Your task to perform on an android device: turn on translation in the chrome app Image 0: 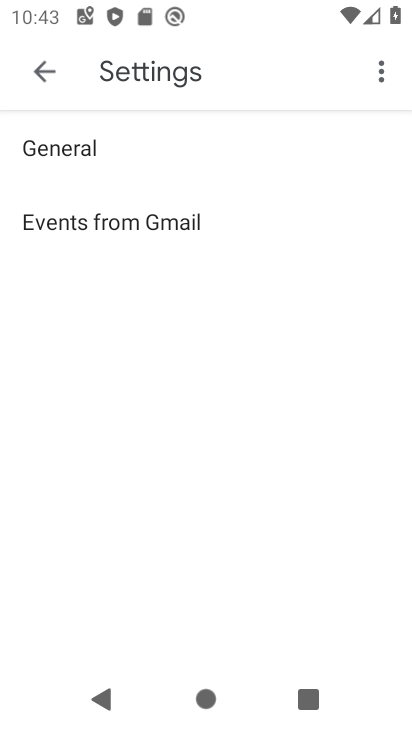
Step 0: press home button
Your task to perform on an android device: turn on translation in the chrome app Image 1: 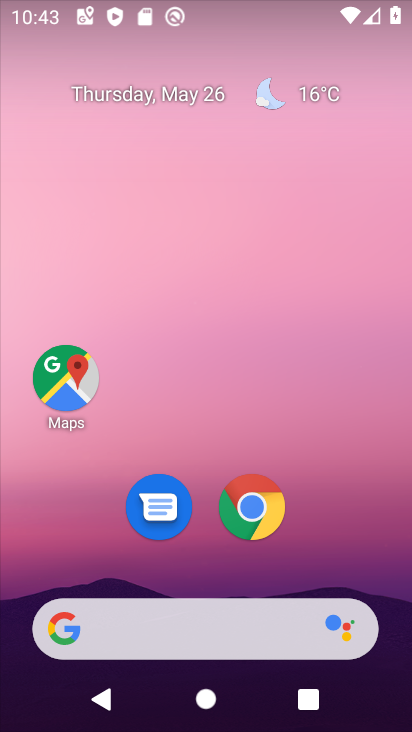
Step 1: drag from (257, 589) to (256, 194)
Your task to perform on an android device: turn on translation in the chrome app Image 2: 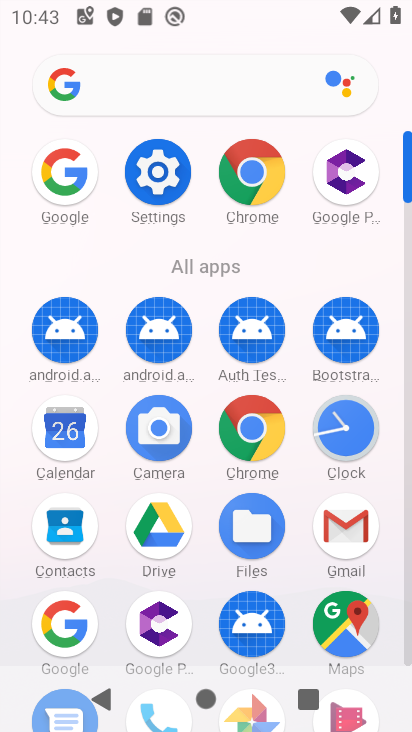
Step 2: click (252, 178)
Your task to perform on an android device: turn on translation in the chrome app Image 3: 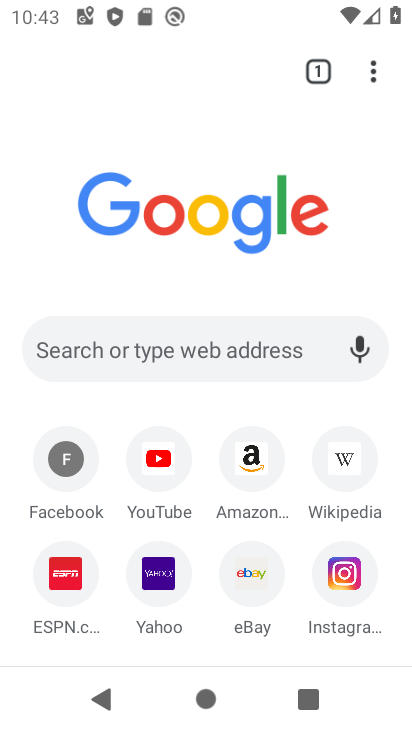
Step 3: click (376, 74)
Your task to perform on an android device: turn on translation in the chrome app Image 4: 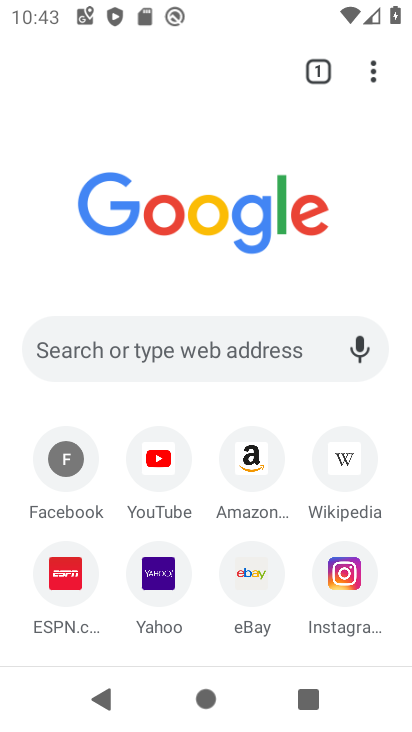
Step 4: click (376, 70)
Your task to perform on an android device: turn on translation in the chrome app Image 5: 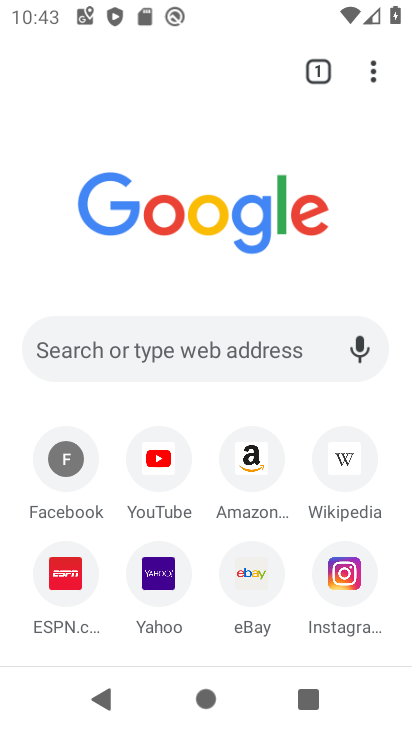
Step 5: click (369, 72)
Your task to perform on an android device: turn on translation in the chrome app Image 6: 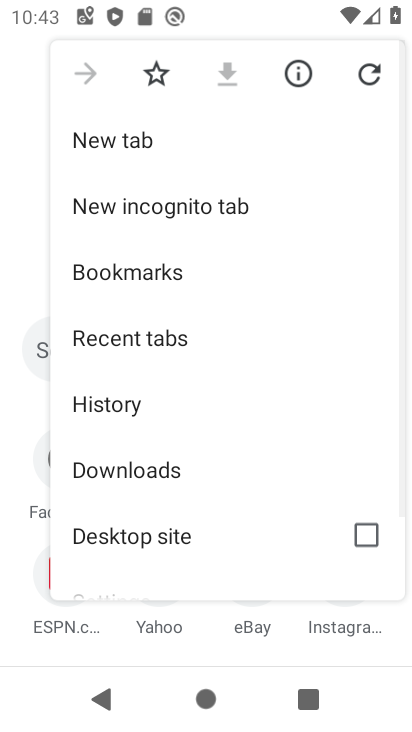
Step 6: drag from (184, 552) to (177, 161)
Your task to perform on an android device: turn on translation in the chrome app Image 7: 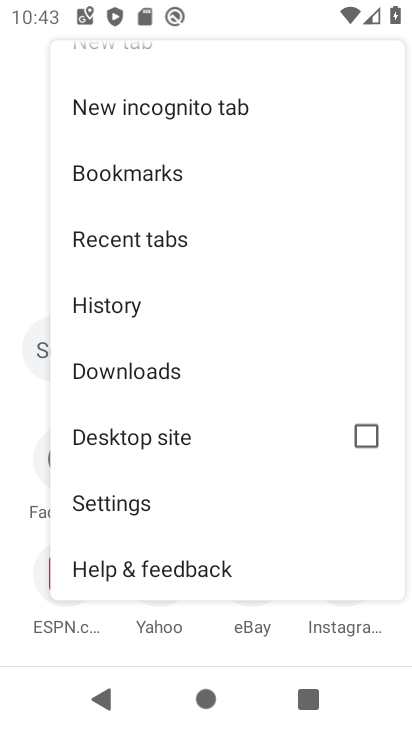
Step 7: click (116, 510)
Your task to perform on an android device: turn on translation in the chrome app Image 8: 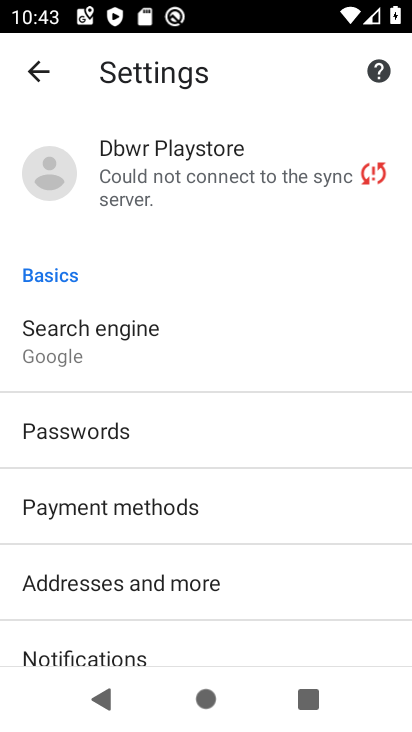
Step 8: drag from (177, 658) to (176, 255)
Your task to perform on an android device: turn on translation in the chrome app Image 9: 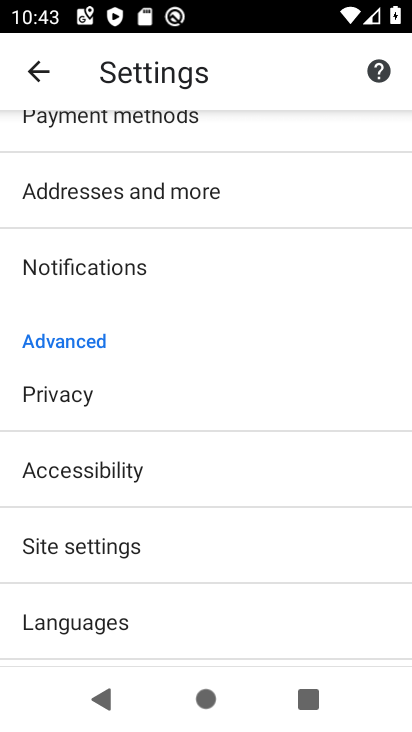
Step 9: click (90, 626)
Your task to perform on an android device: turn on translation in the chrome app Image 10: 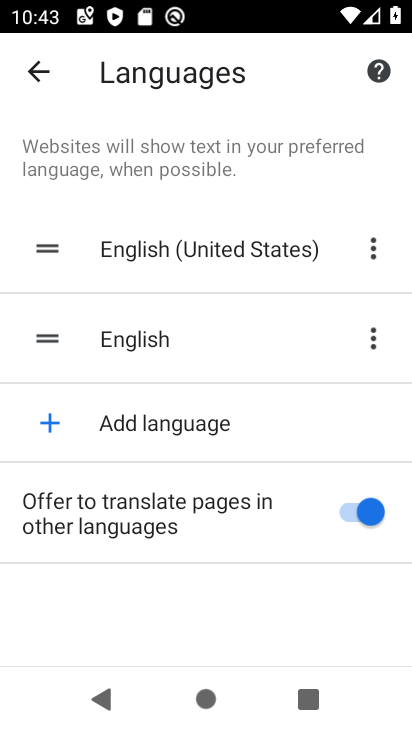
Step 10: task complete